Your task to perform on an android device: Open settings on Google Maps Image 0: 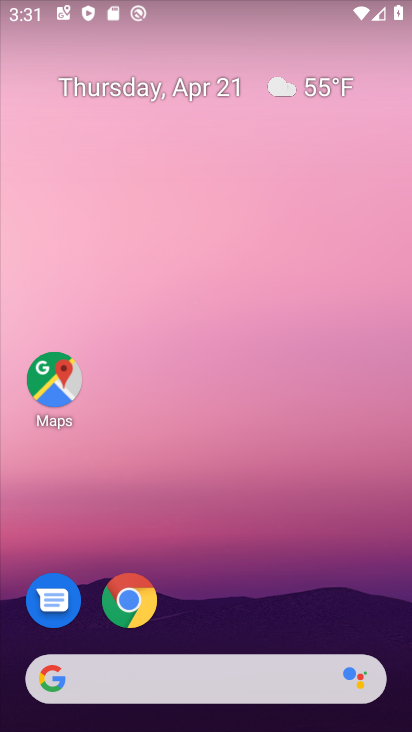
Step 0: drag from (189, 672) to (296, 77)
Your task to perform on an android device: Open settings on Google Maps Image 1: 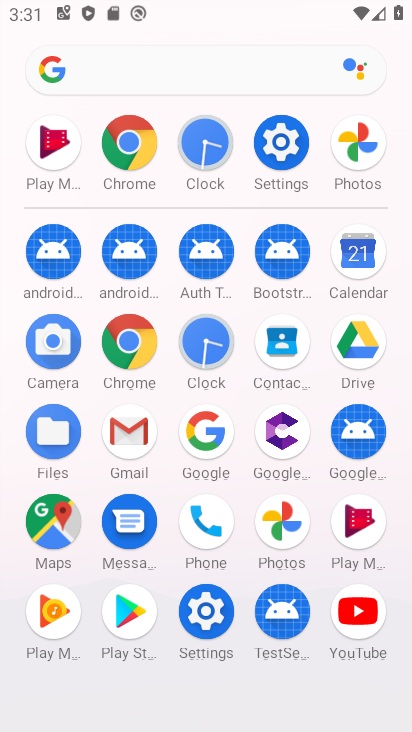
Step 1: click (56, 530)
Your task to perform on an android device: Open settings on Google Maps Image 2: 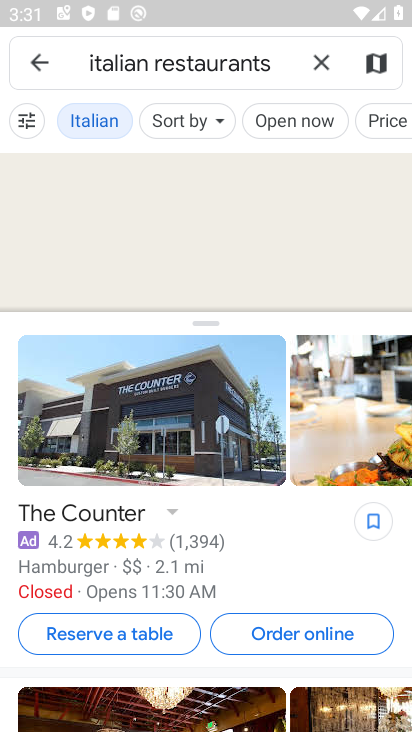
Step 2: click (39, 60)
Your task to perform on an android device: Open settings on Google Maps Image 3: 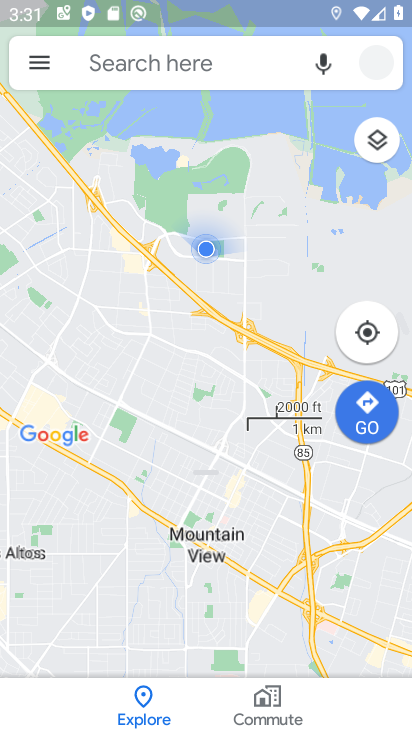
Step 3: click (42, 59)
Your task to perform on an android device: Open settings on Google Maps Image 4: 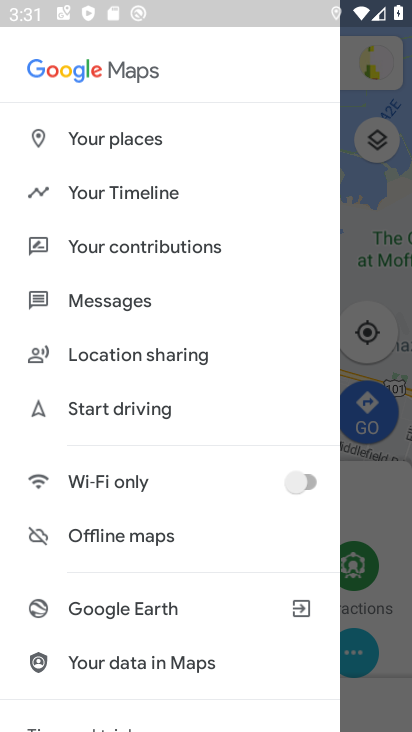
Step 4: drag from (210, 648) to (253, 84)
Your task to perform on an android device: Open settings on Google Maps Image 5: 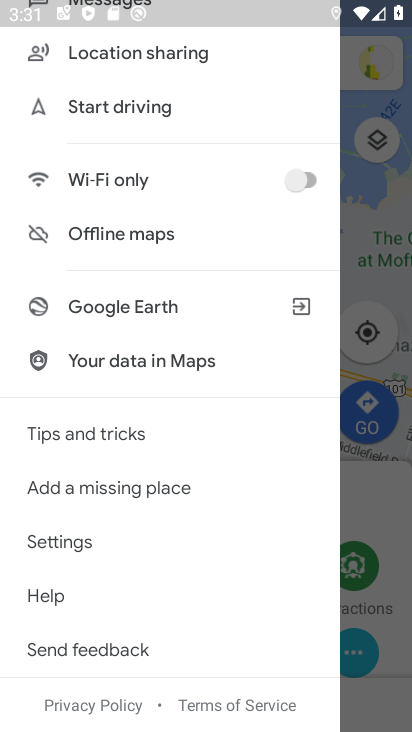
Step 5: click (73, 539)
Your task to perform on an android device: Open settings on Google Maps Image 6: 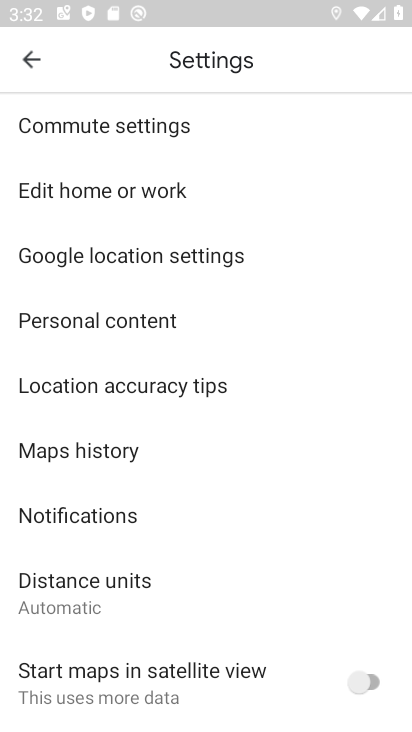
Step 6: task complete